Your task to perform on an android device: When is my next meeting? Image 0: 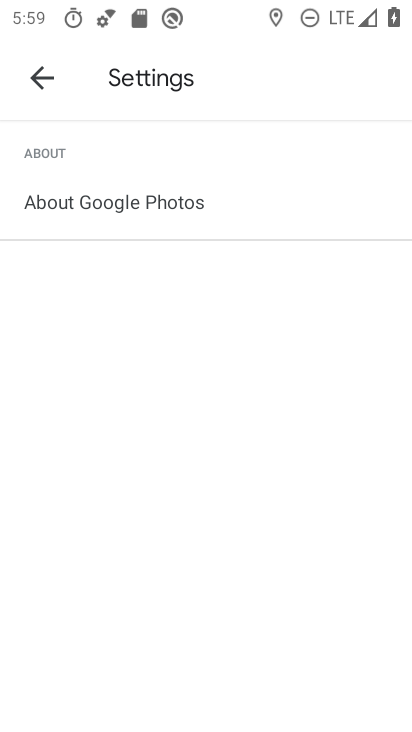
Step 0: press back button
Your task to perform on an android device: When is my next meeting? Image 1: 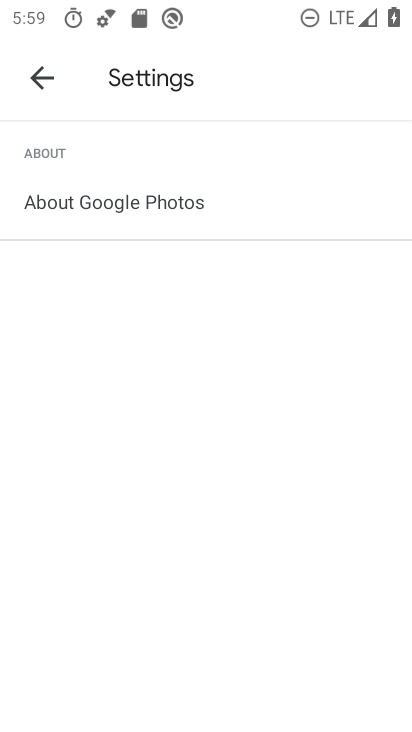
Step 1: press home button
Your task to perform on an android device: When is my next meeting? Image 2: 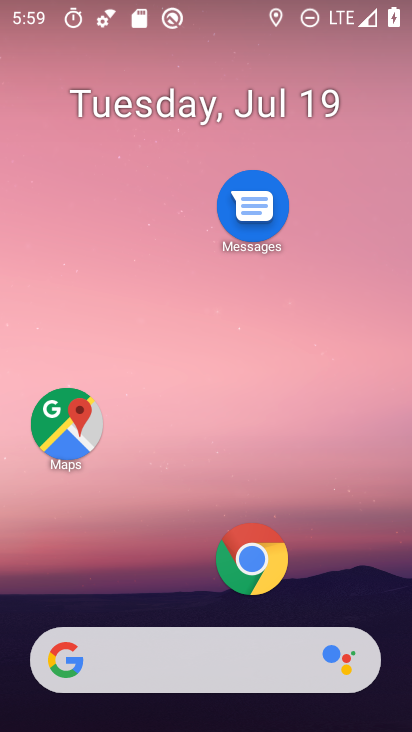
Step 2: drag from (174, 564) to (166, 6)
Your task to perform on an android device: When is my next meeting? Image 3: 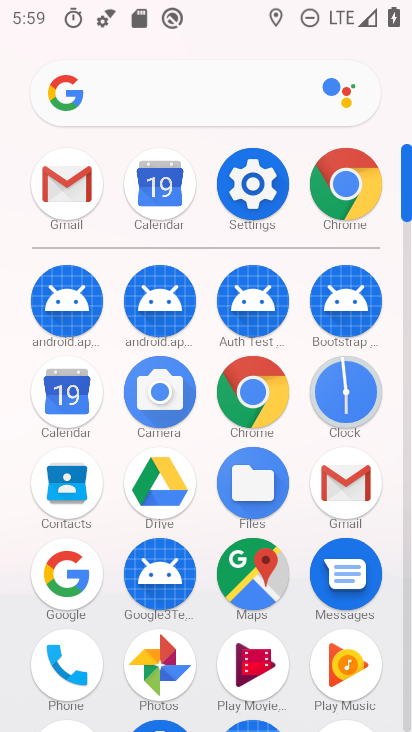
Step 3: click (67, 408)
Your task to perform on an android device: When is my next meeting? Image 4: 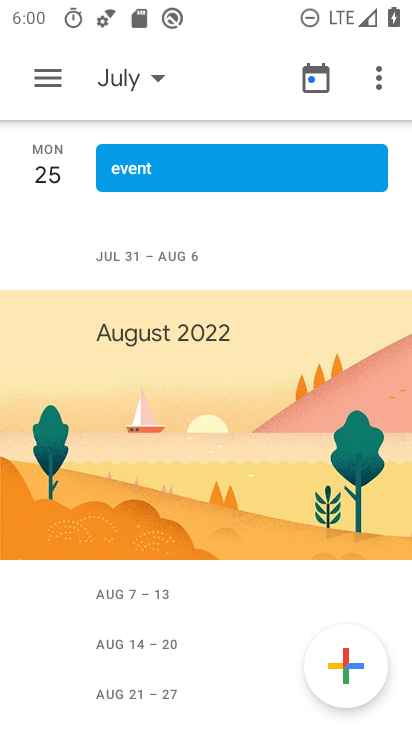
Step 4: task complete